Your task to perform on an android device: refresh tabs in the chrome app Image 0: 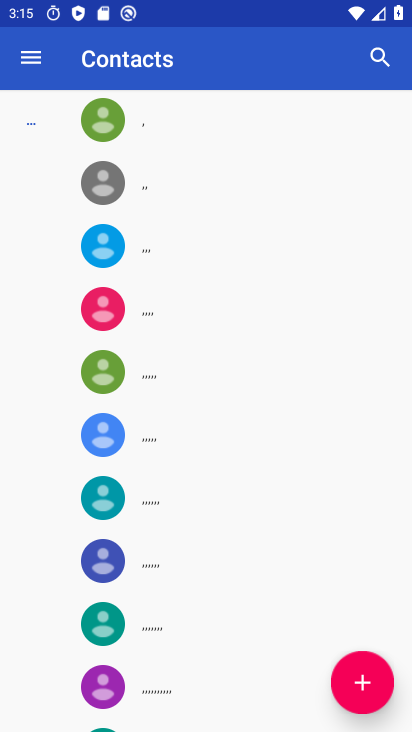
Step 0: press back button
Your task to perform on an android device: refresh tabs in the chrome app Image 1: 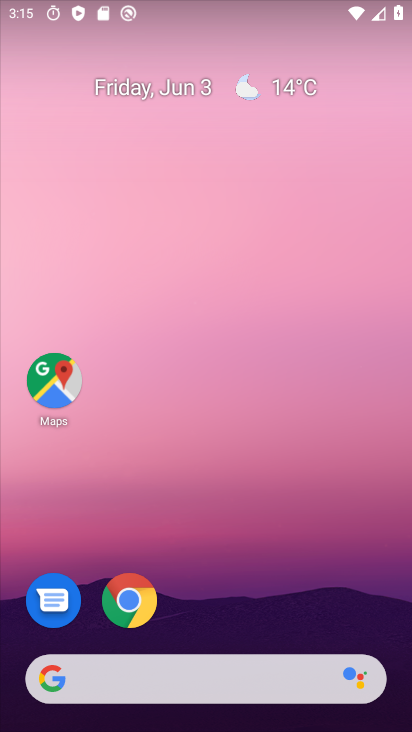
Step 1: drag from (237, 549) to (212, 15)
Your task to perform on an android device: refresh tabs in the chrome app Image 2: 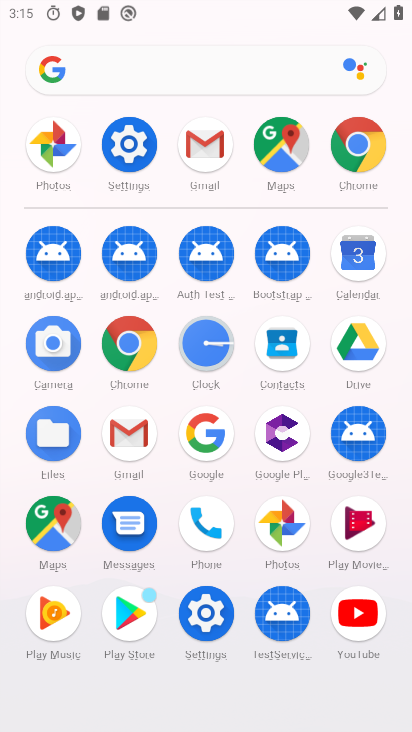
Step 2: drag from (5, 420) to (0, 234)
Your task to perform on an android device: refresh tabs in the chrome app Image 3: 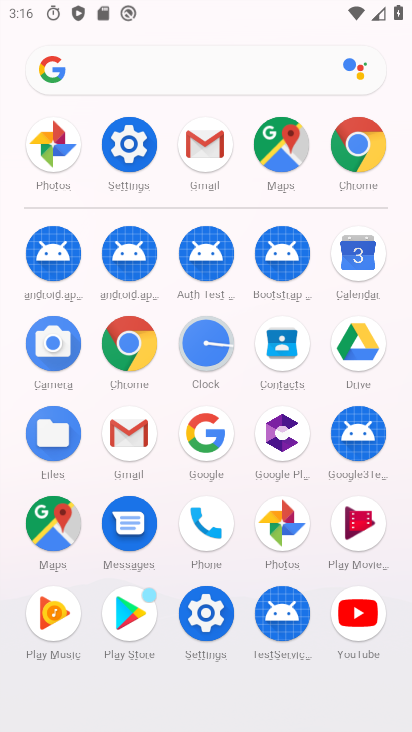
Step 3: click (358, 142)
Your task to perform on an android device: refresh tabs in the chrome app Image 4: 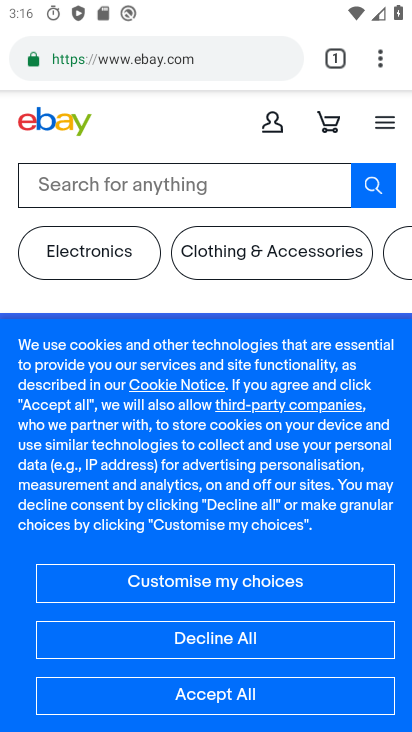
Step 4: click (379, 57)
Your task to perform on an android device: refresh tabs in the chrome app Image 5: 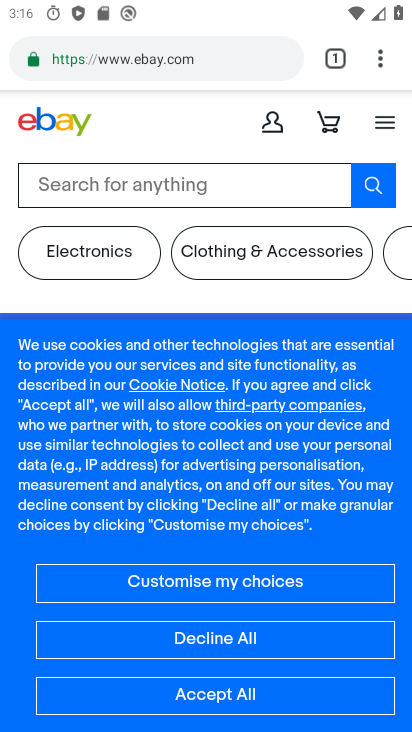
Step 5: task complete